Your task to perform on an android device: Go to settings Image 0: 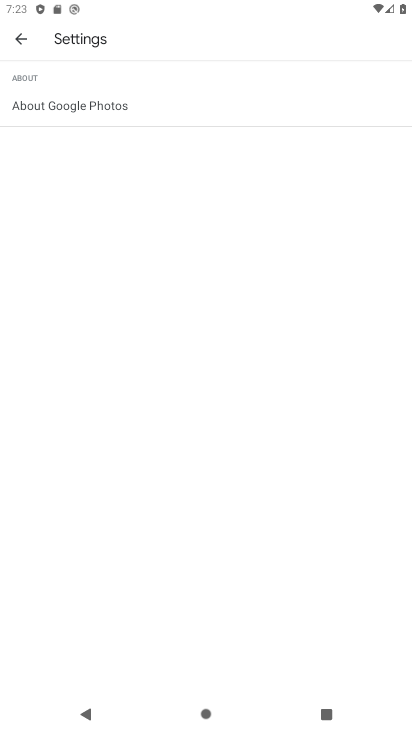
Step 0: press home button
Your task to perform on an android device: Go to settings Image 1: 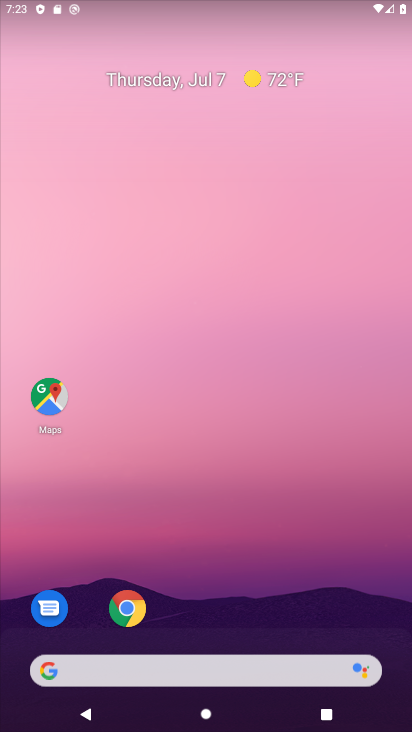
Step 1: drag from (372, 568) to (322, 123)
Your task to perform on an android device: Go to settings Image 2: 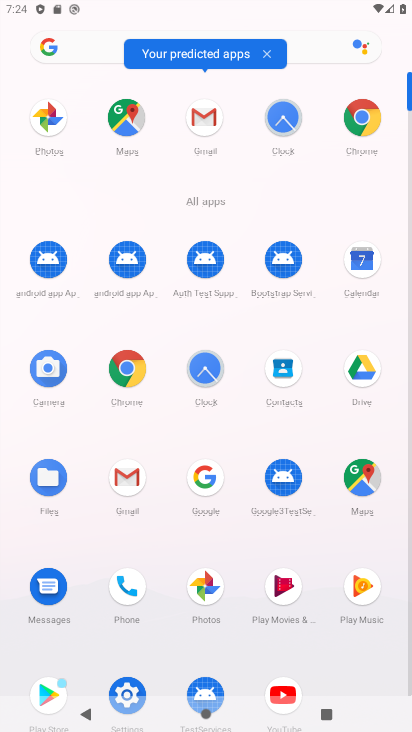
Step 2: click (129, 681)
Your task to perform on an android device: Go to settings Image 3: 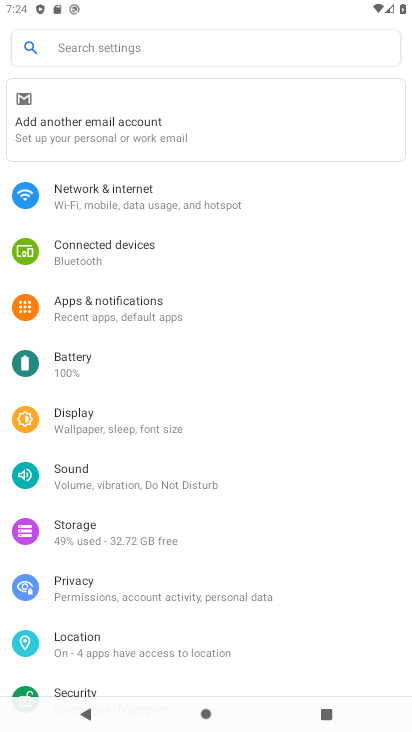
Step 3: task complete